Your task to perform on an android device: Go to Google maps Image 0: 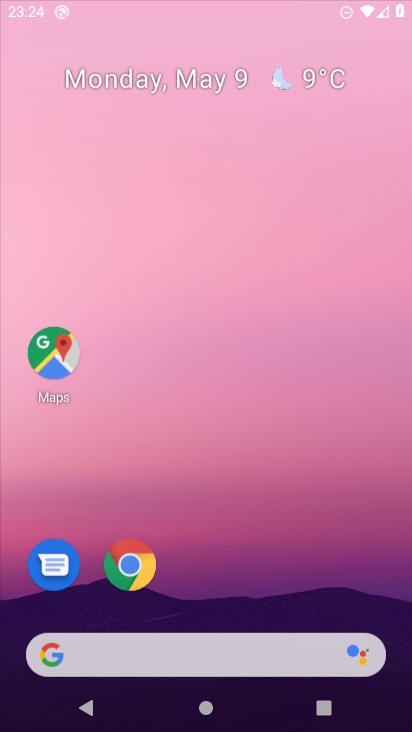
Step 0: drag from (225, 479) to (249, 91)
Your task to perform on an android device: Go to Google maps Image 1: 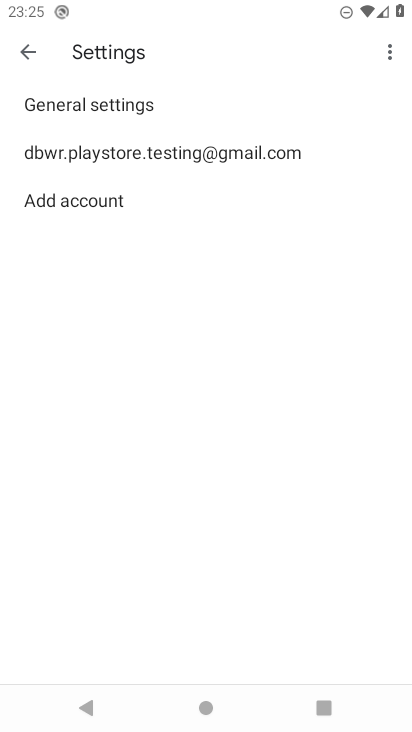
Step 1: press home button
Your task to perform on an android device: Go to Google maps Image 2: 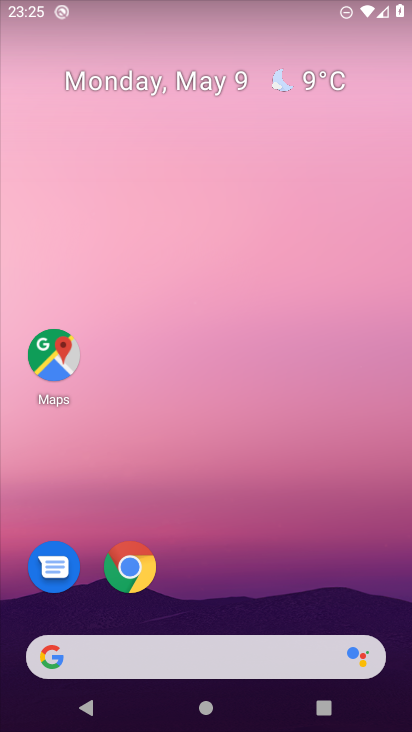
Step 2: drag from (211, 613) to (259, 107)
Your task to perform on an android device: Go to Google maps Image 3: 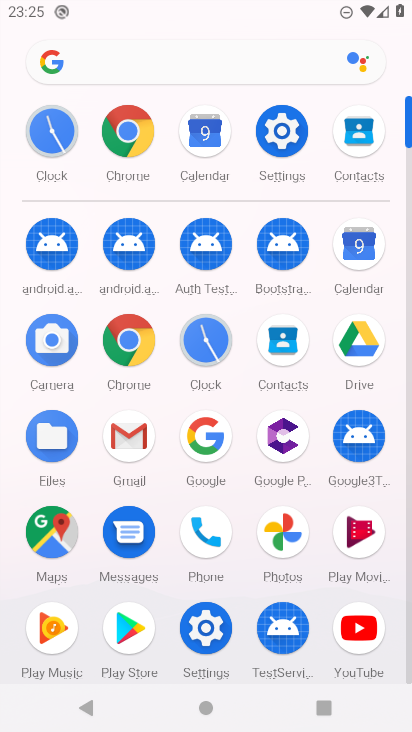
Step 3: click (49, 529)
Your task to perform on an android device: Go to Google maps Image 4: 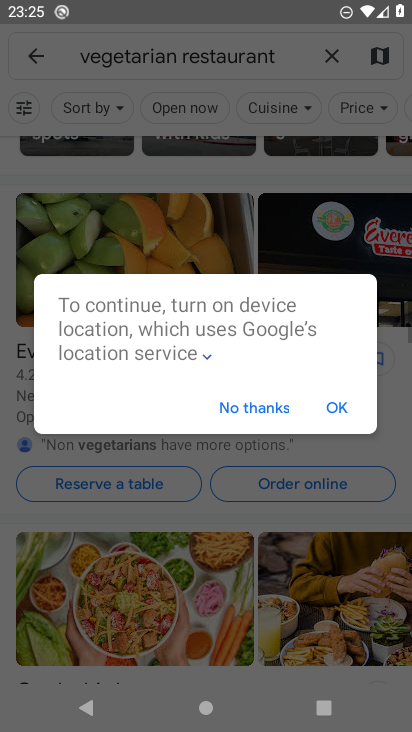
Step 4: click (250, 401)
Your task to perform on an android device: Go to Google maps Image 5: 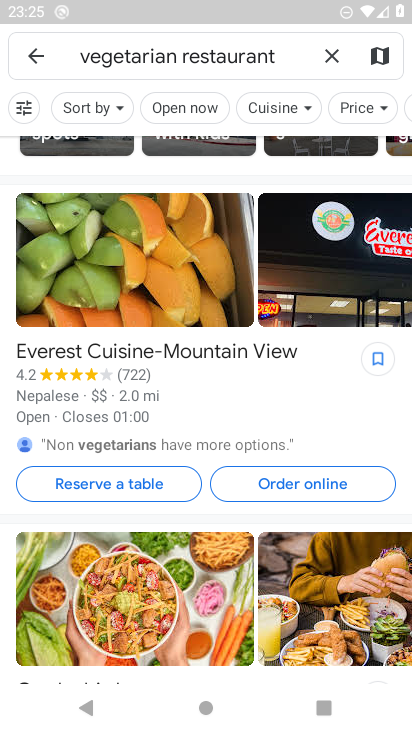
Step 5: click (337, 60)
Your task to perform on an android device: Go to Google maps Image 6: 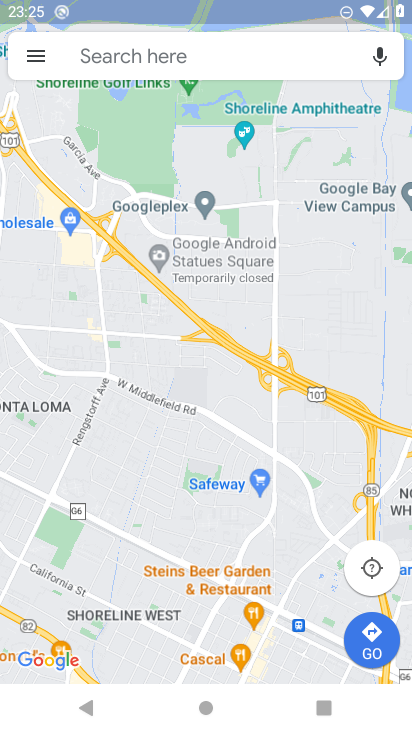
Step 6: task complete